Your task to perform on an android device: Go to Google Image 0: 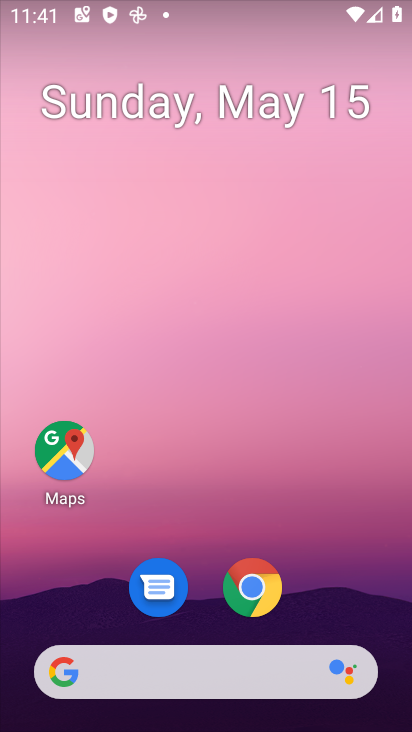
Step 0: drag from (390, 619) to (297, 42)
Your task to perform on an android device: Go to Google Image 1: 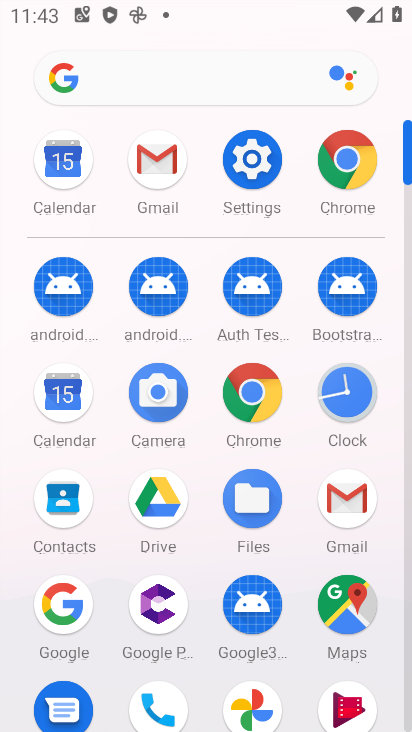
Step 1: click (51, 599)
Your task to perform on an android device: Go to Google Image 2: 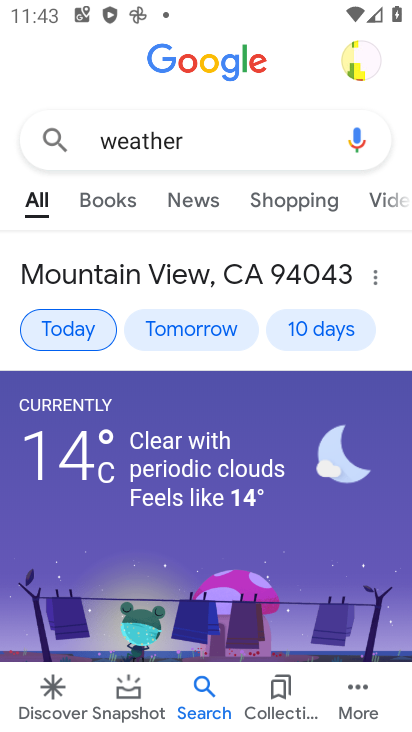
Step 2: press back button
Your task to perform on an android device: Go to Google Image 3: 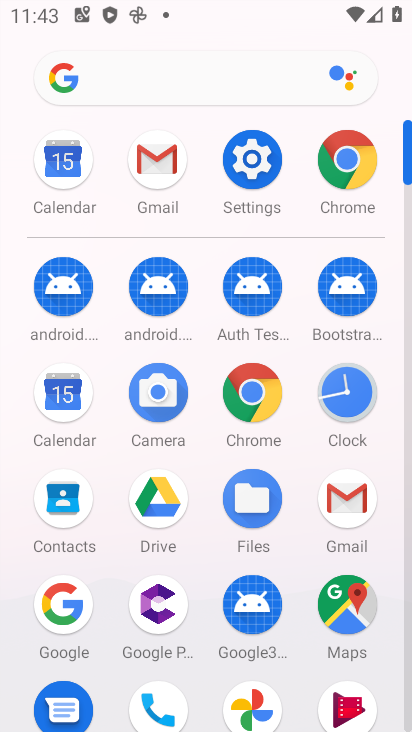
Step 3: click (54, 598)
Your task to perform on an android device: Go to Google Image 4: 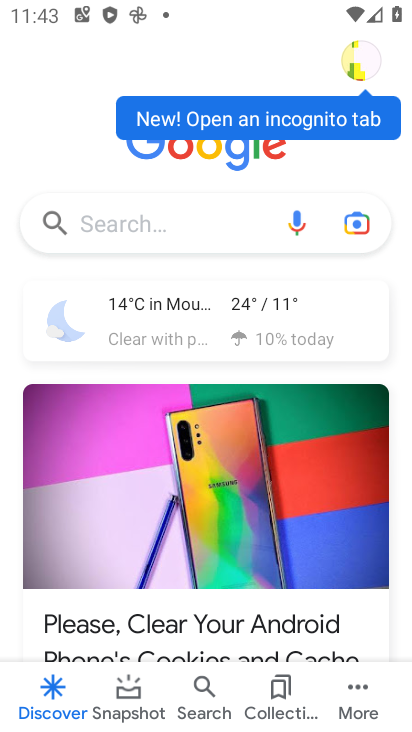
Step 4: task complete